Your task to perform on an android device: View the shopping cart on amazon.com. Add "alienware aurora" to the cart on amazon.com, then select checkout. Image 0: 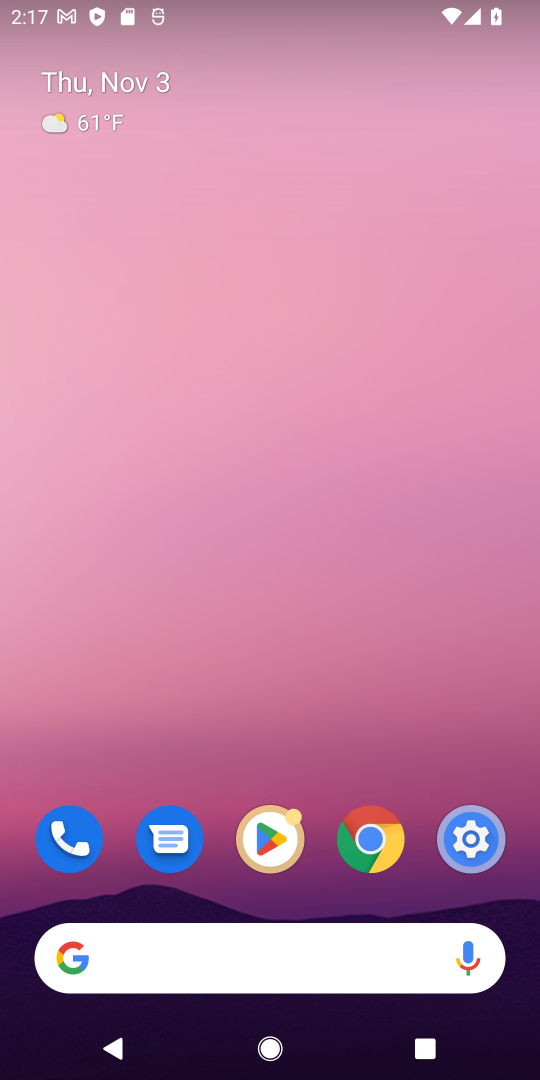
Step 0: click (282, 981)
Your task to perform on an android device: View the shopping cart on amazon.com. Add "alienware aurora" to the cart on amazon.com, then select checkout. Image 1: 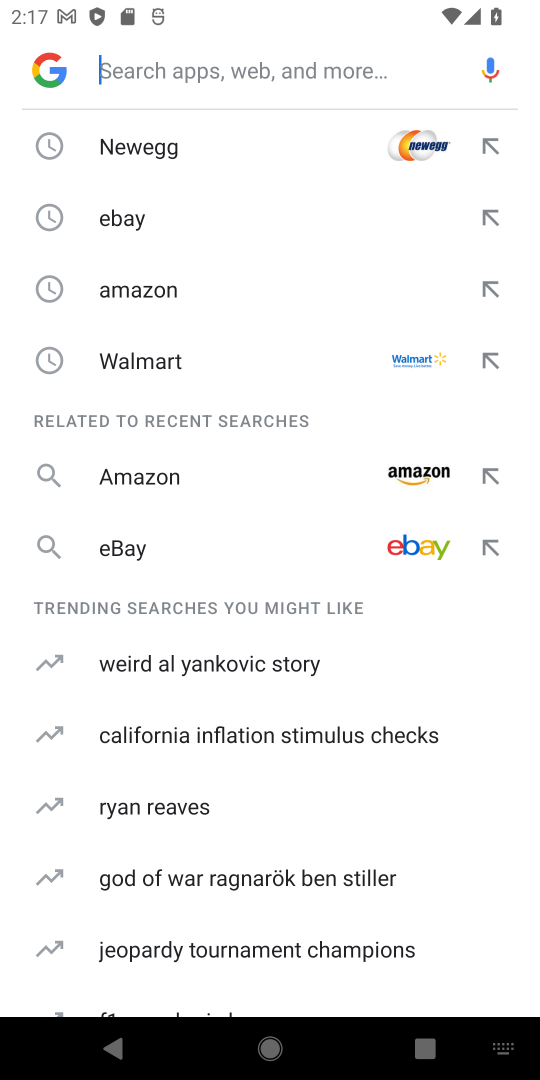
Step 1: click (190, 289)
Your task to perform on an android device: View the shopping cart on amazon.com. Add "alienware aurora" to the cart on amazon.com, then select checkout. Image 2: 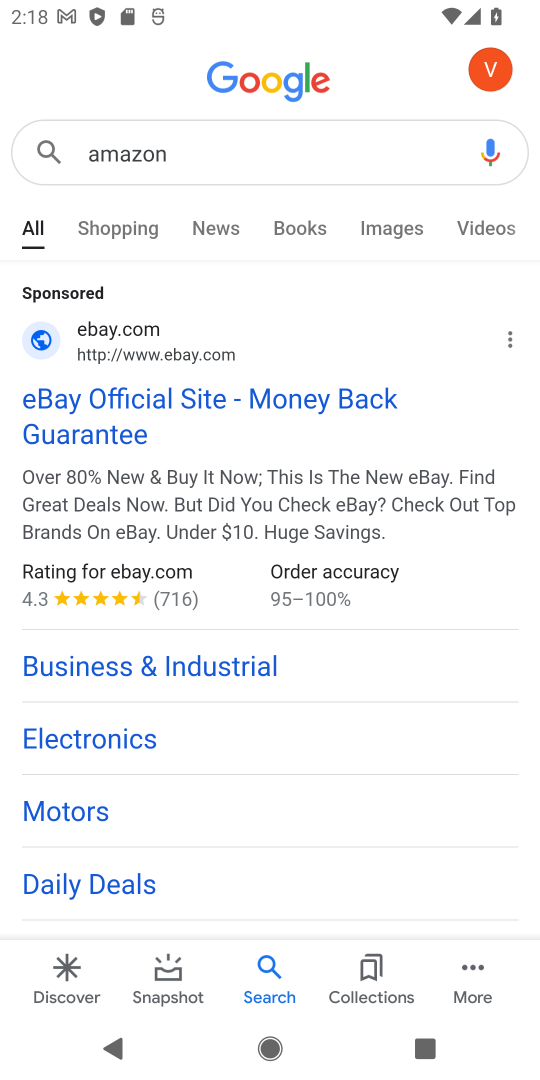
Step 2: drag from (294, 820) to (133, 26)
Your task to perform on an android device: View the shopping cart on amazon.com. Add "alienware aurora" to the cart on amazon.com, then select checkout. Image 3: 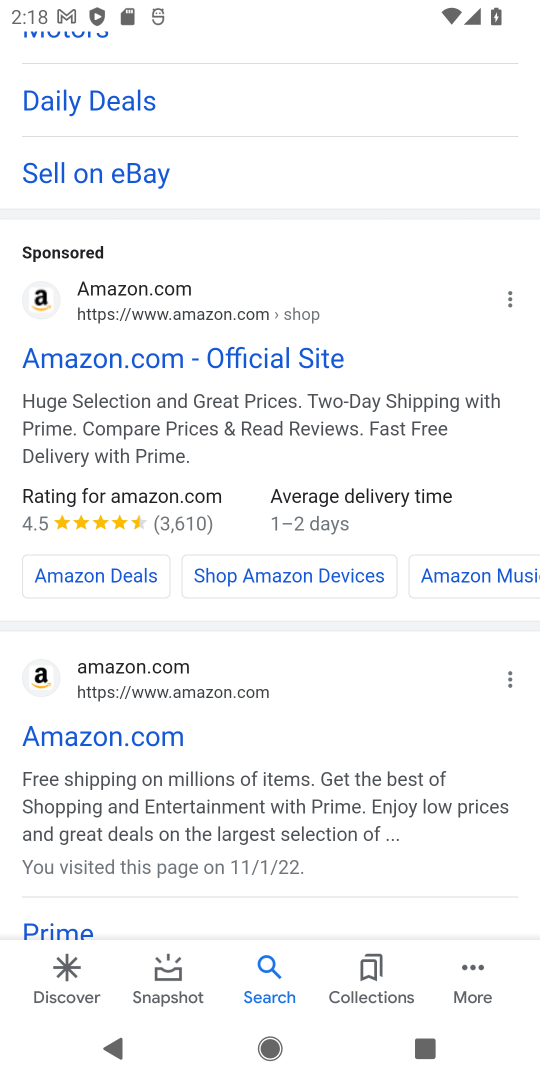
Step 3: click (236, 382)
Your task to perform on an android device: View the shopping cart on amazon.com. Add "alienware aurora" to the cart on amazon.com, then select checkout. Image 4: 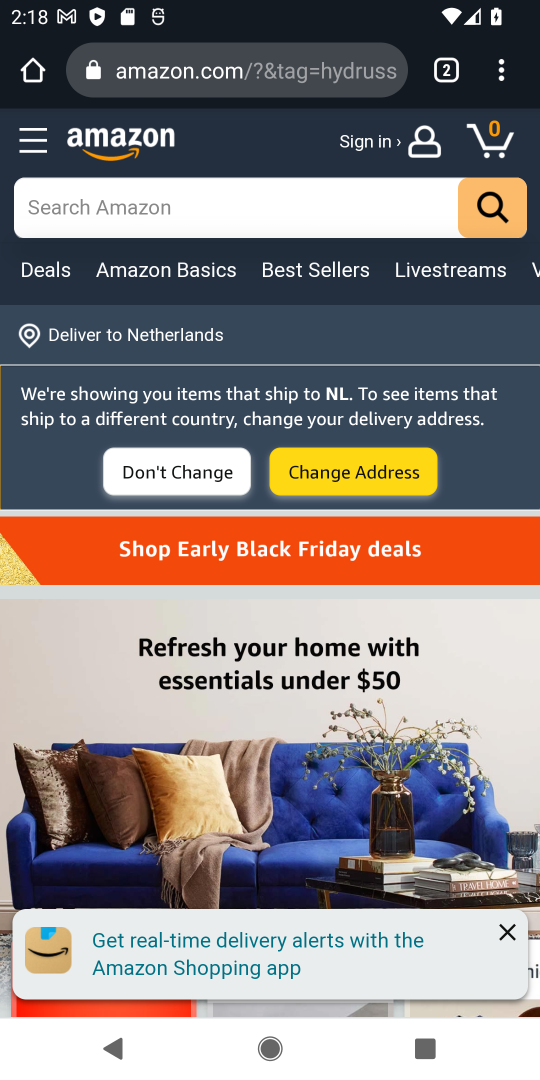
Step 4: click (307, 216)
Your task to perform on an android device: View the shopping cart on amazon.com. Add "alienware aurora" to the cart on amazon.com, then select checkout. Image 5: 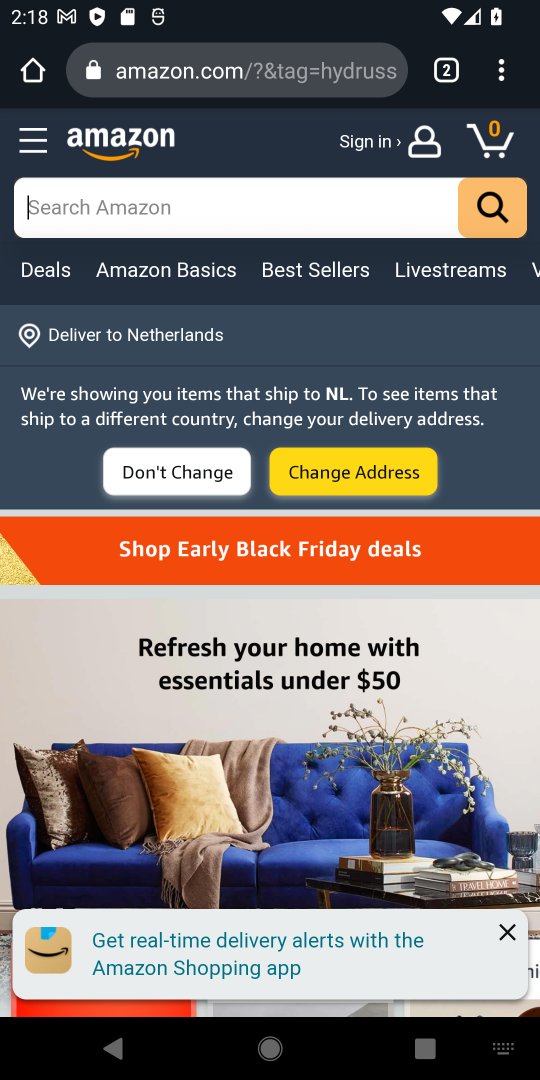
Step 5: type "alienware aurora"
Your task to perform on an android device: View the shopping cart on amazon.com. Add "alienware aurora" to the cart on amazon.com, then select checkout. Image 6: 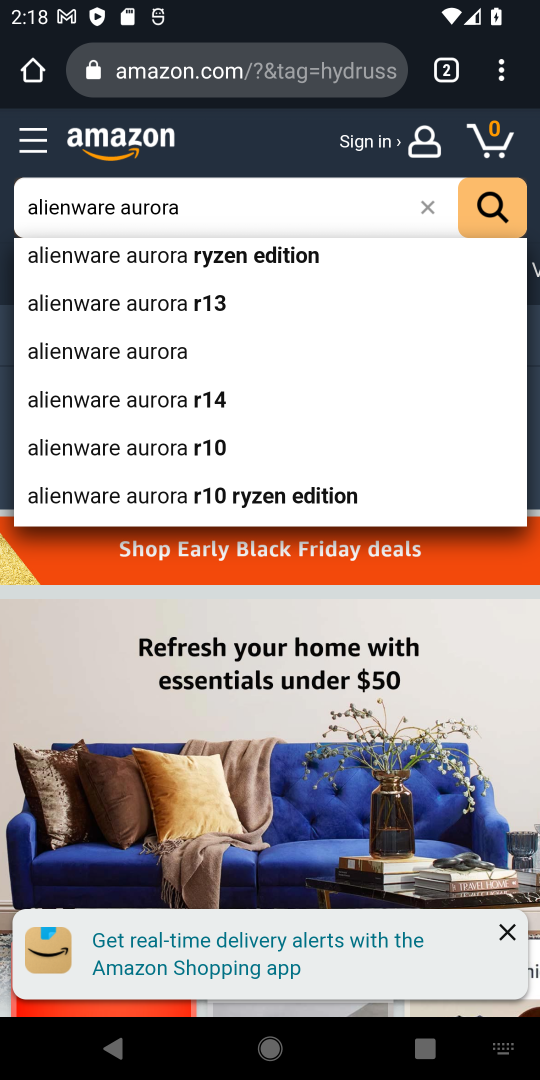
Step 6: click (100, 346)
Your task to perform on an android device: View the shopping cart on amazon.com. Add "alienware aurora" to the cart on amazon.com, then select checkout. Image 7: 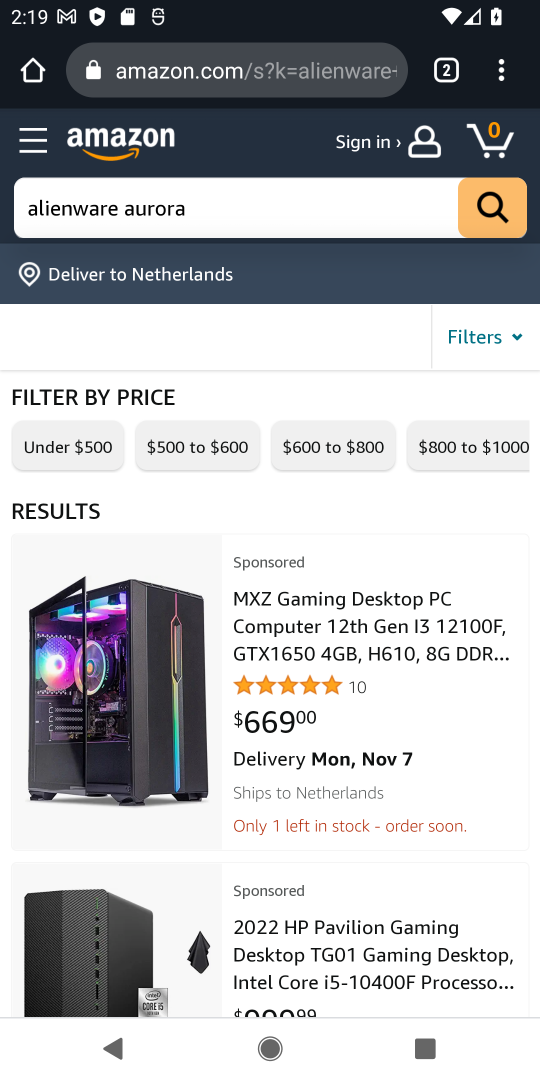
Step 7: click (401, 615)
Your task to perform on an android device: View the shopping cart on amazon.com. Add "alienware aurora" to the cart on amazon.com, then select checkout. Image 8: 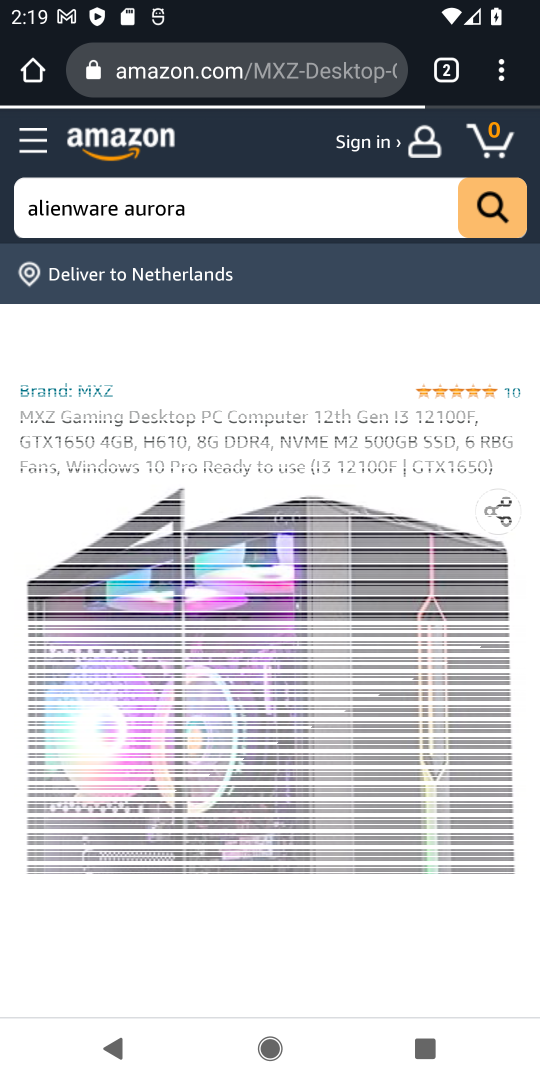
Step 8: drag from (353, 737) to (365, 307)
Your task to perform on an android device: View the shopping cart on amazon.com. Add "alienware aurora" to the cart on amazon.com, then select checkout. Image 9: 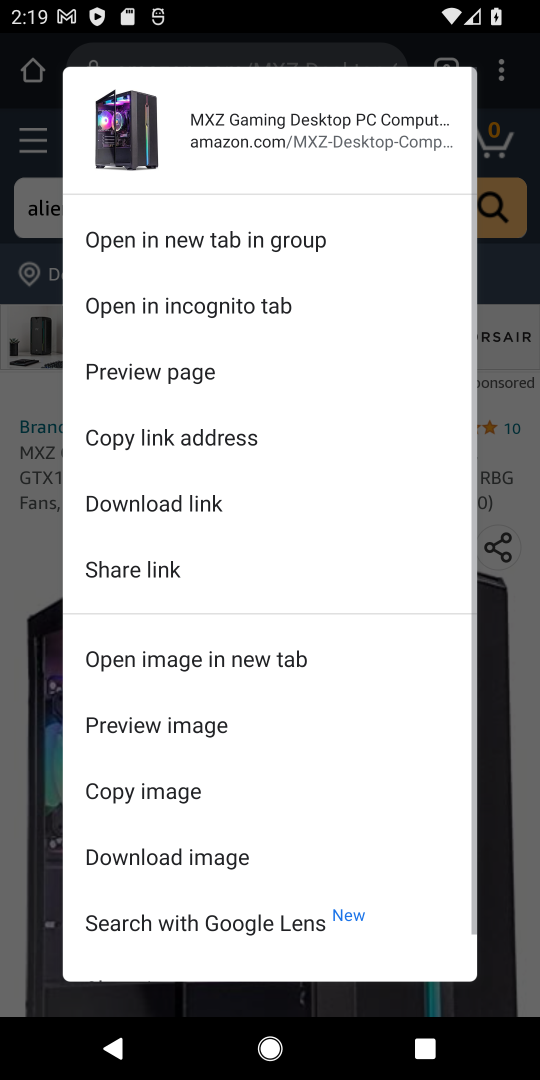
Step 9: click (524, 739)
Your task to perform on an android device: View the shopping cart on amazon.com. Add "alienware aurora" to the cart on amazon.com, then select checkout. Image 10: 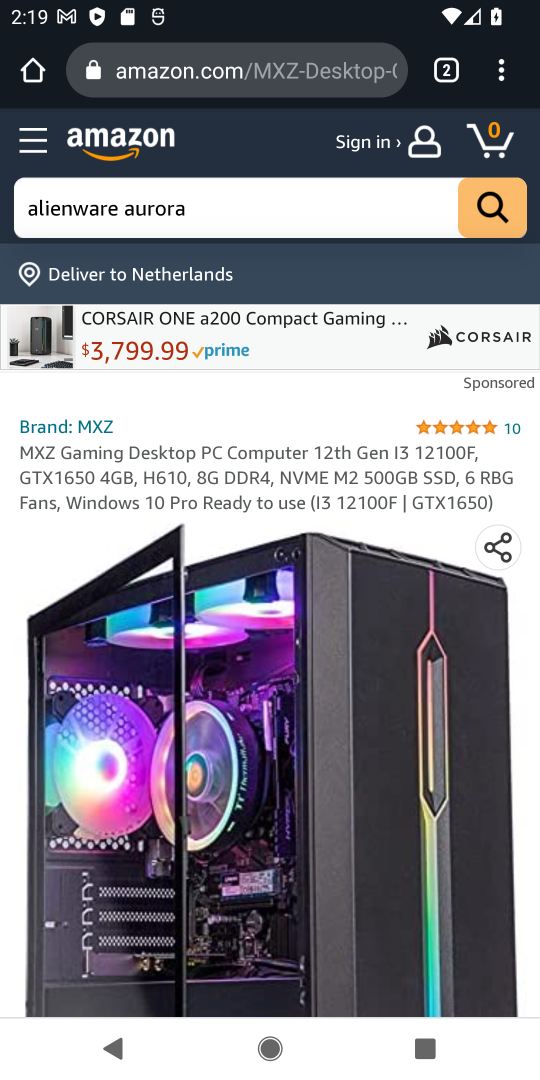
Step 10: drag from (392, 986) to (388, 430)
Your task to perform on an android device: View the shopping cart on amazon.com. Add "alienware aurora" to the cart on amazon.com, then select checkout. Image 11: 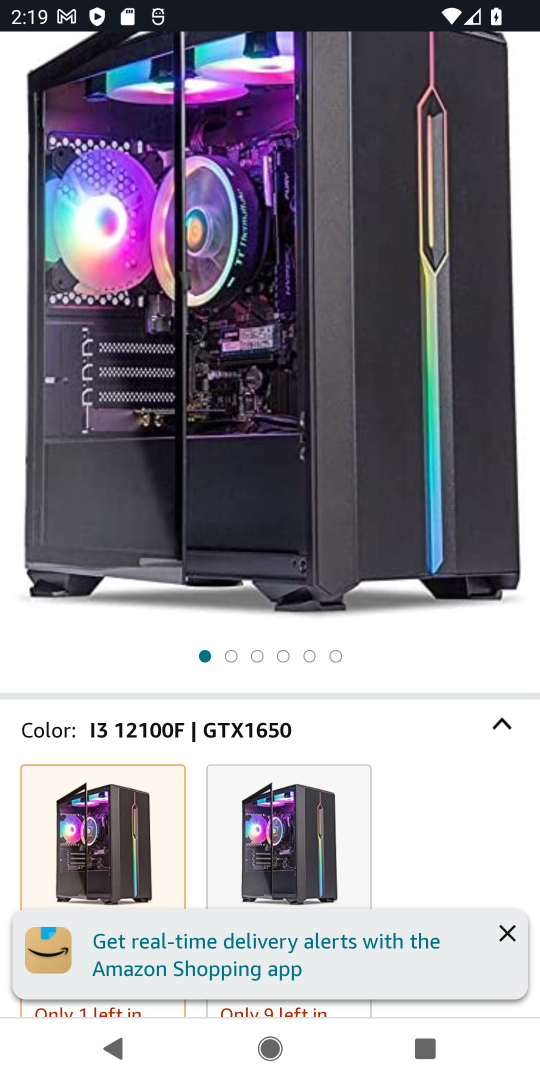
Step 11: drag from (407, 865) to (403, 279)
Your task to perform on an android device: View the shopping cart on amazon.com. Add "alienware aurora" to the cart on amazon.com, then select checkout. Image 12: 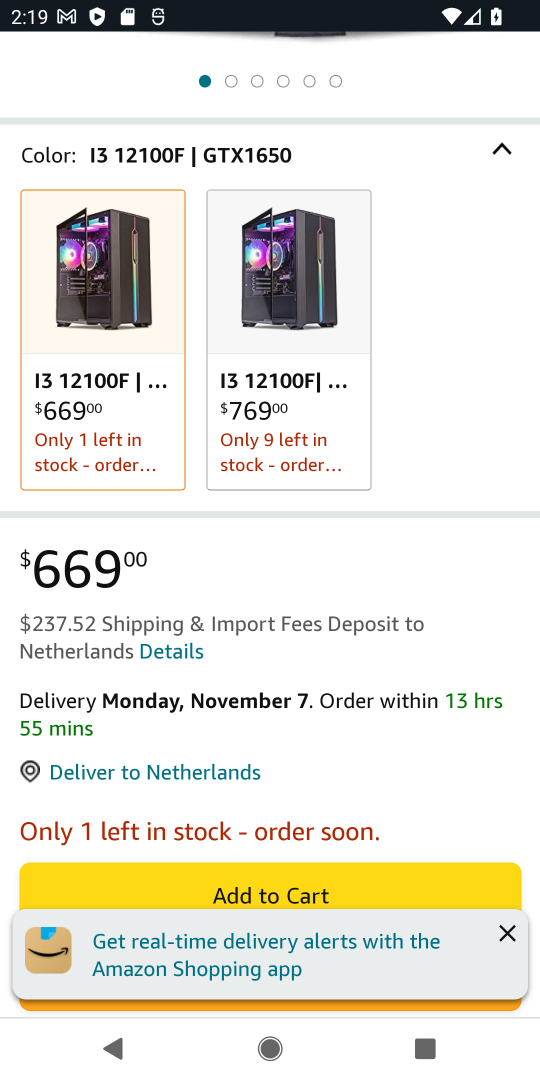
Step 12: click (303, 896)
Your task to perform on an android device: View the shopping cart on amazon.com. Add "alienware aurora" to the cart on amazon.com, then select checkout. Image 13: 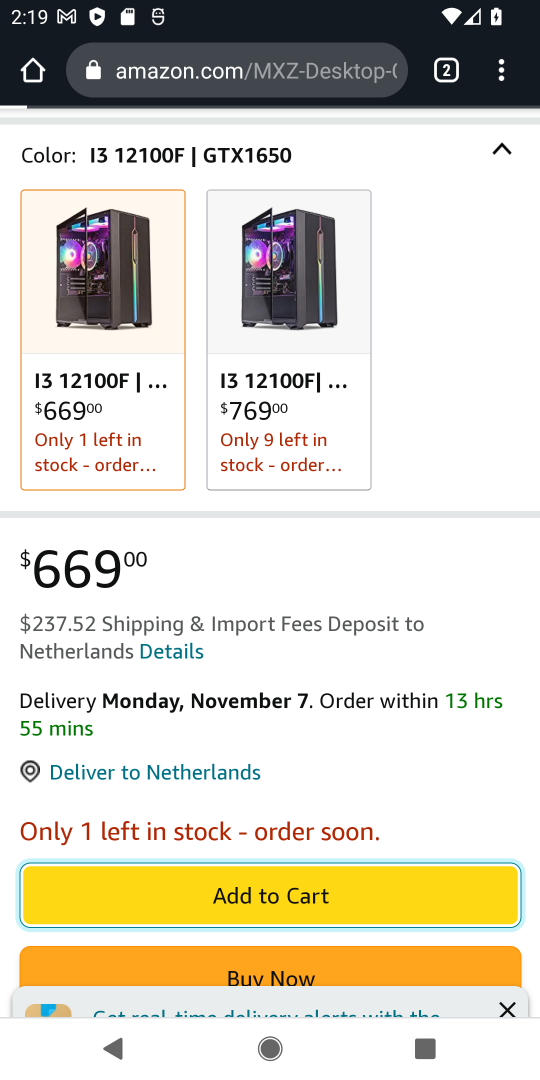
Step 13: task complete